Your task to perform on an android device: Go to network settings Image 0: 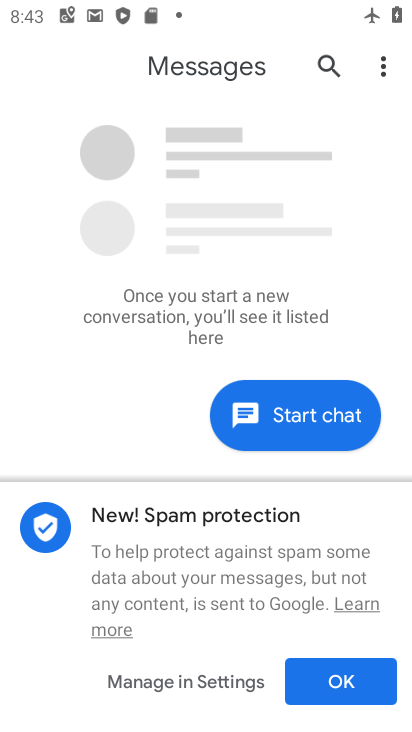
Step 0: drag from (210, 592) to (317, 85)
Your task to perform on an android device: Go to network settings Image 1: 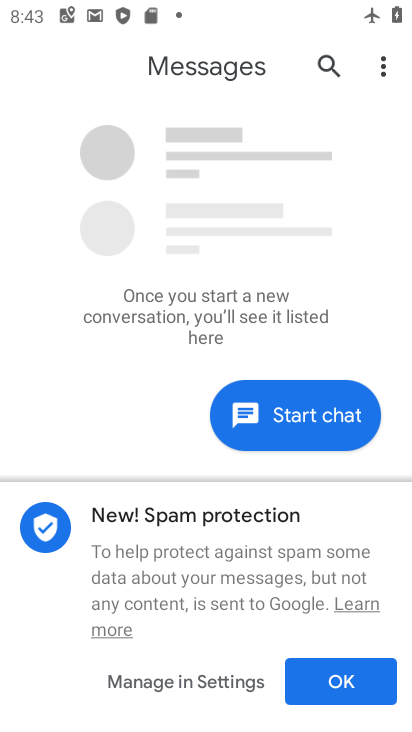
Step 1: press home button
Your task to perform on an android device: Go to network settings Image 2: 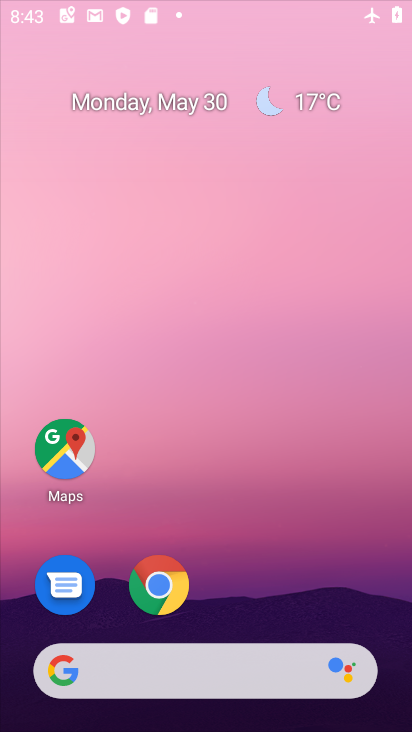
Step 2: click (276, 127)
Your task to perform on an android device: Go to network settings Image 3: 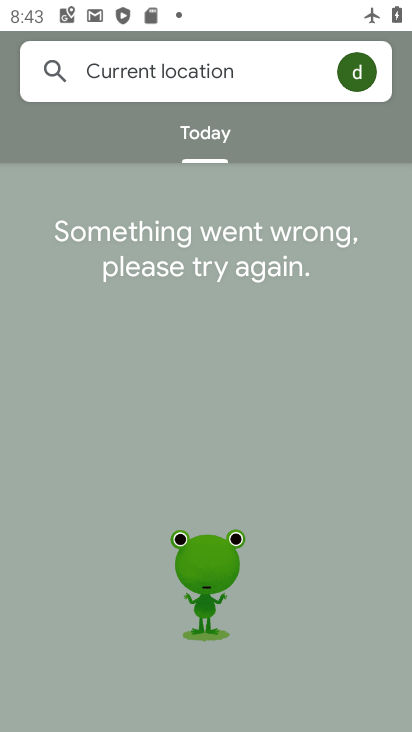
Step 3: drag from (218, 553) to (285, 173)
Your task to perform on an android device: Go to network settings Image 4: 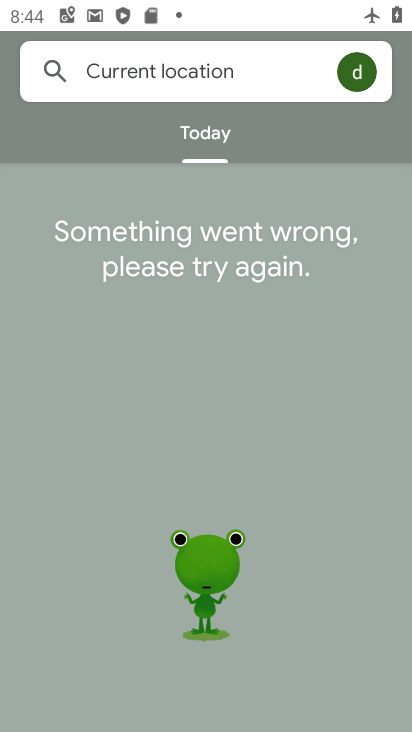
Step 4: drag from (269, 477) to (271, 221)
Your task to perform on an android device: Go to network settings Image 5: 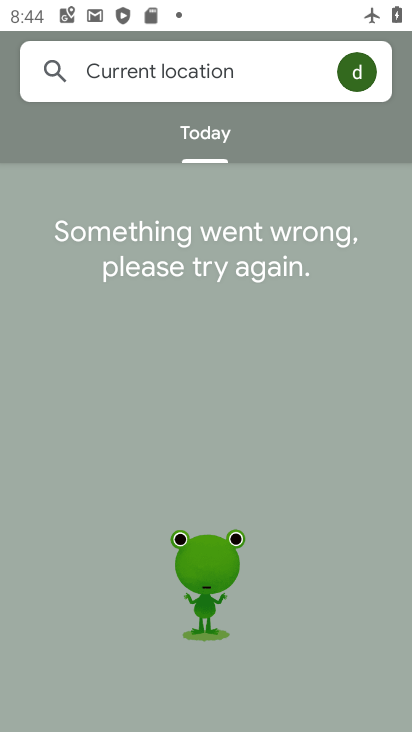
Step 5: press home button
Your task to perform on an android device: Go to network settings Image 6: 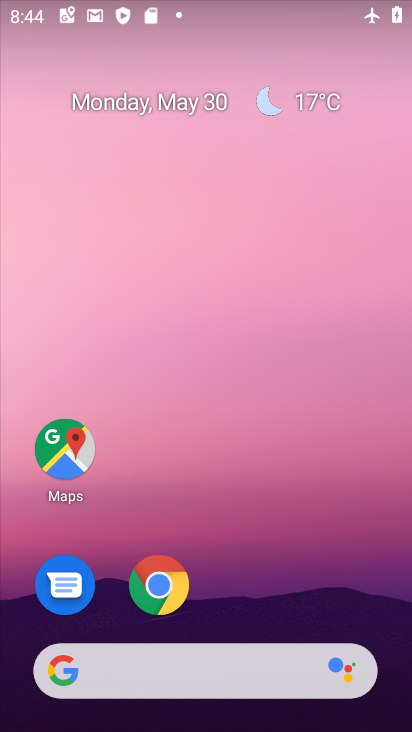
Step 6: drag from (226, 397) to (230, 174)
Your task to perform on an android device: Go to network settings Image 7: 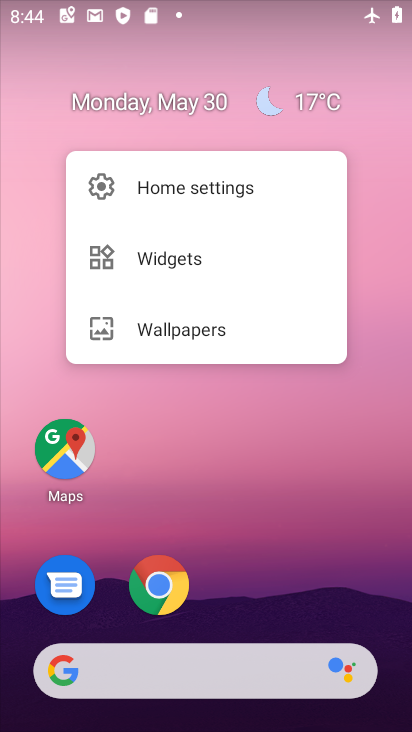
Step 7: drag from (236, 591) to (250, 313)
Your task to perform on an android device: Go to network settings Image 8: 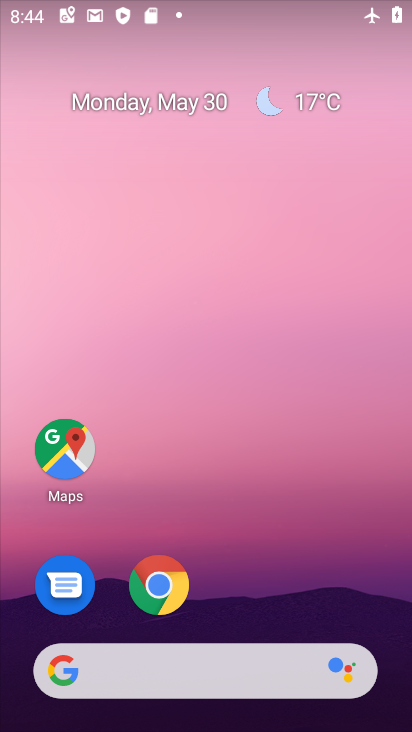
Step 8: click (259, 8)
Your task to perform on an android device: Go to network settings Image 9: 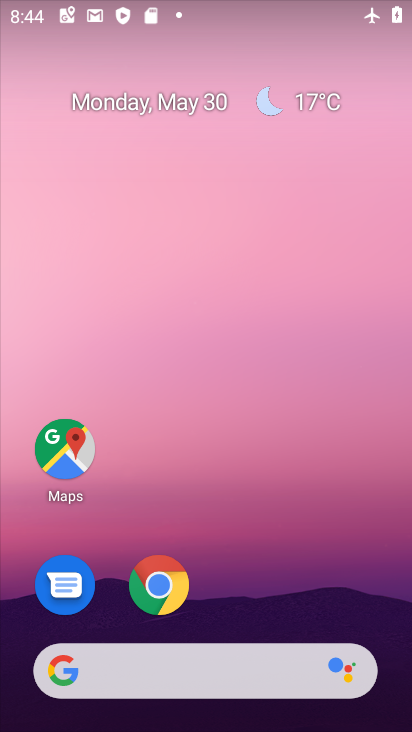
Step 9: drag from (214, 577) to (227, 39)
Your task to perform on an android device: Go to network settings Image 10: 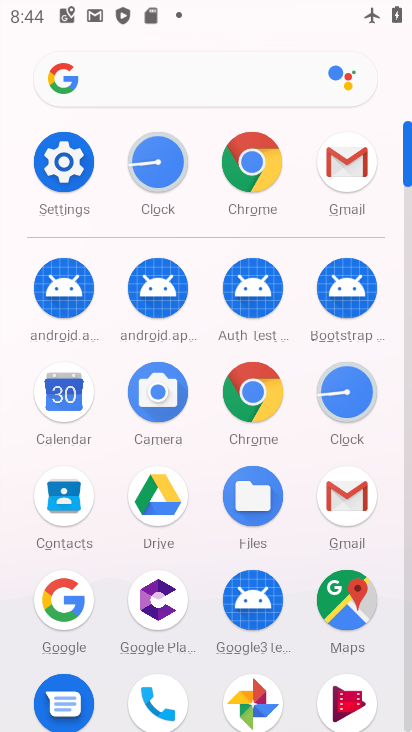
Step 10: click (51, 149)
Your task to perform on an android device: Go to network settings Image 11: 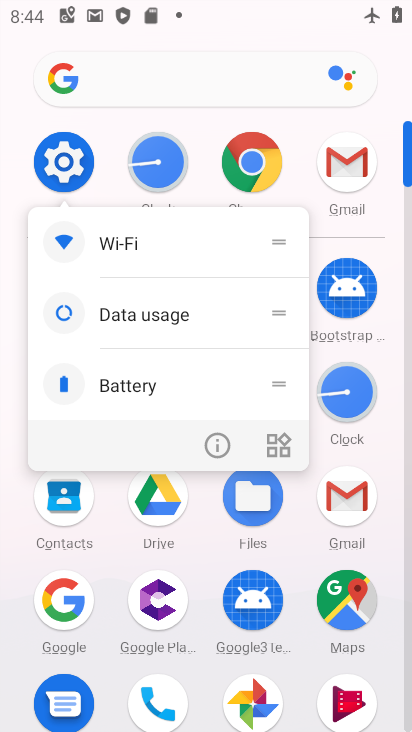
Step 11: click (216, 453)
Your task to perform on an android device: Go to network settings Image 12: 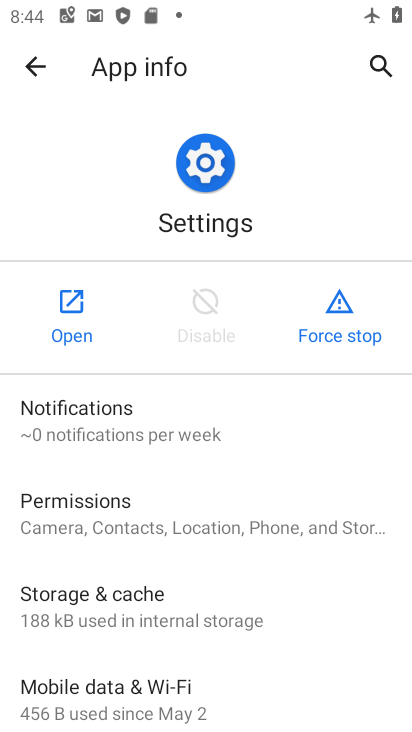
Step 12: click (66, 335)
Your task to perform on an android device: Go to network settings Image 13: 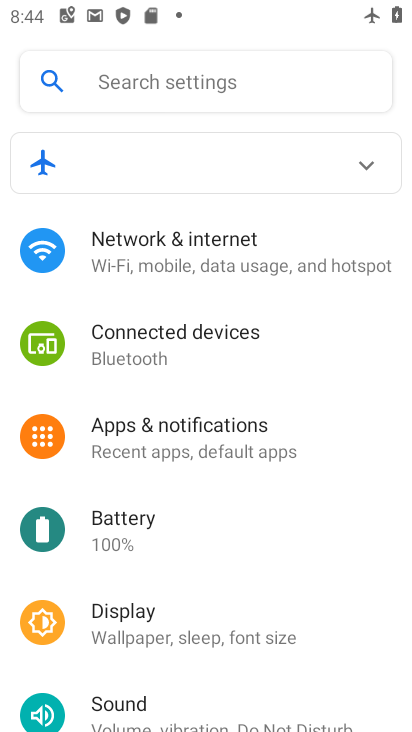
Step 13: click (267, 265)
Your task to perform on an android device: Go to network settings Image 14: 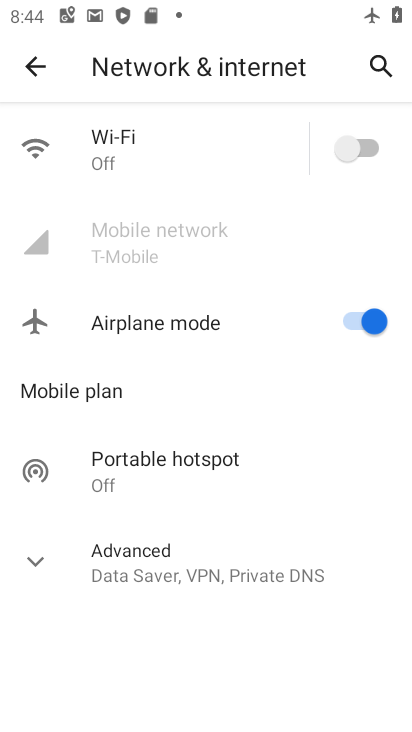
Step 14: task complete